Your task to perform on an android device: see sites visited before in the chrome app Image 0: 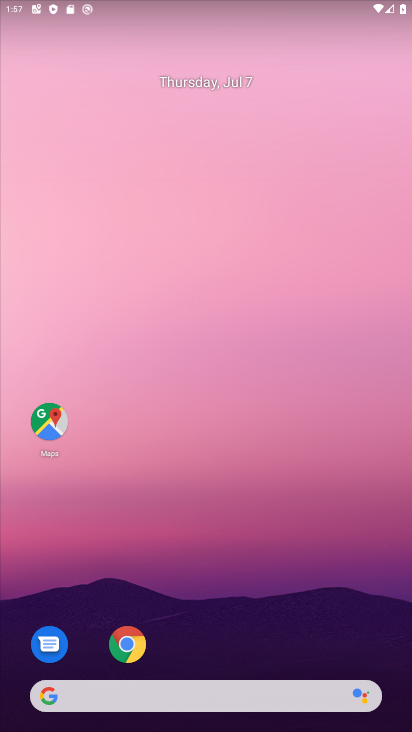
Step 0: press home button
Your task to perform on an android device: see sites visited before in the chrome app Image 1: 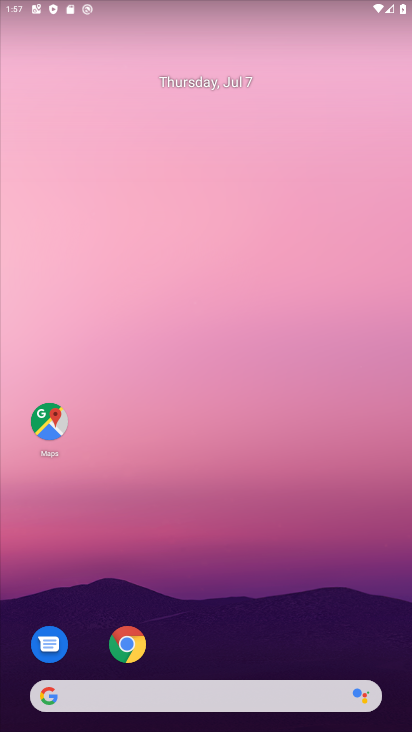
Step 1: click (131, 645)
Your task to perform on an android device: see sites visited before in the chrome app Image 2: 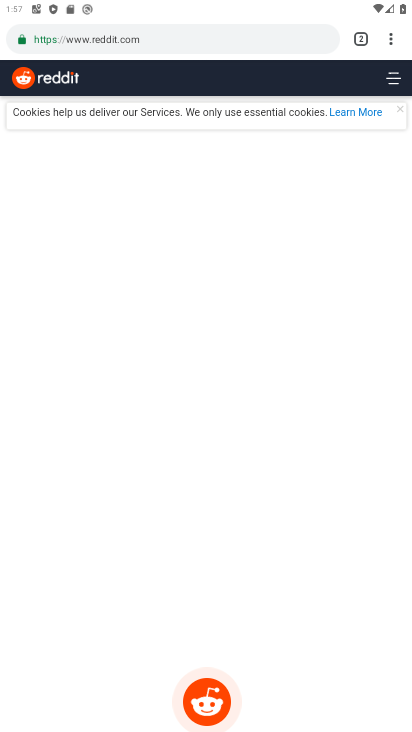
Step 2: task complete